Your task to perform on an android device: Open battery settings Image 0: 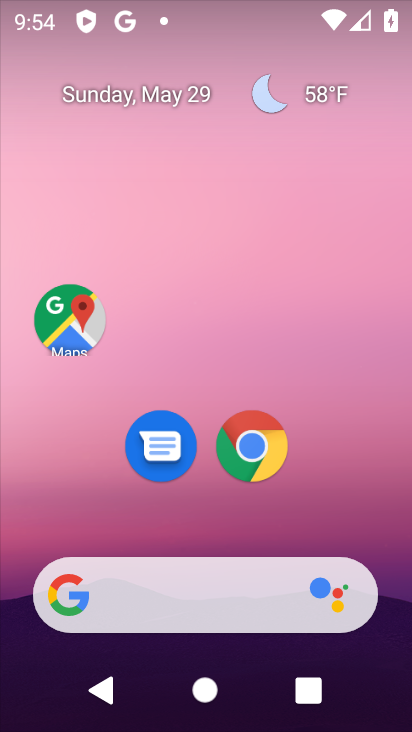
Step 0: drag from (337, 518) to (185, 25)
Your task to perform on an android device: Open battery settings Image 1: 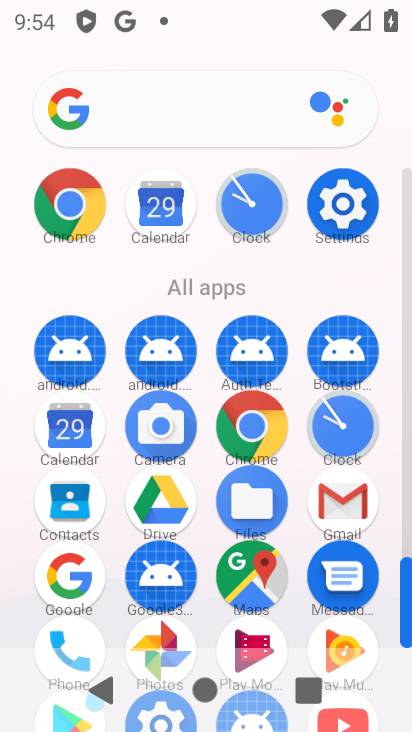
Step 1: drag from (4, 601) to (11, 207)
Your task to perform on an android device: Open battery settings Image 2: 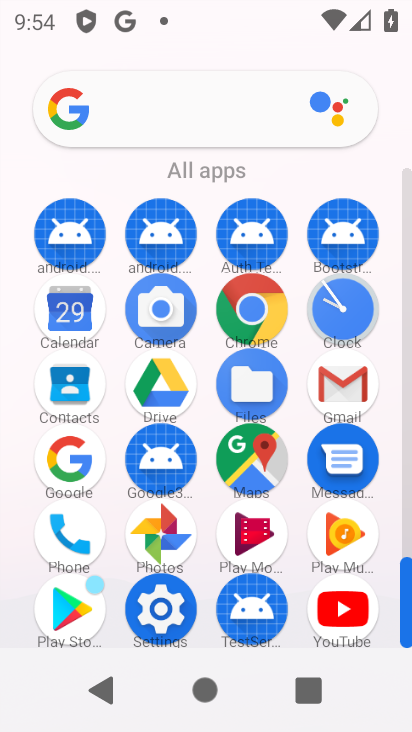
Step 2: click (160, 607)
Your task to perform on an android device: Open battery settings Image 3: 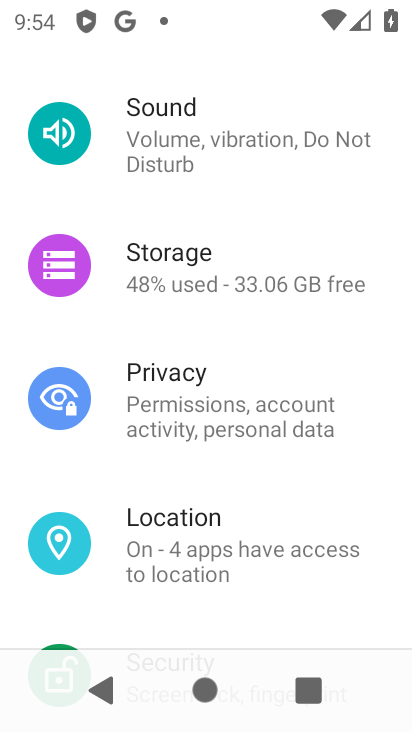
Step 3: drag from (272, 546) to (245, 158)
Your task to perform on an android device: Open battery settings Image 4: 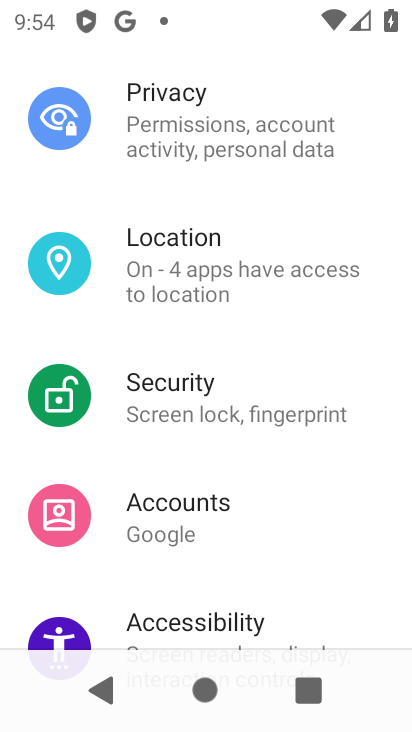
Step 4: drag from (255, 554) to (215, 135)
Your task to perform on an android device: Open battery settings Image 5: 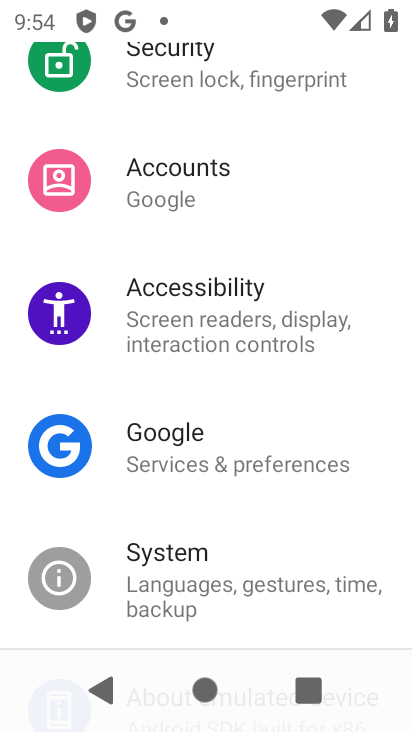
Step 5: drag from (222, 535) to (263, 140)
Your task to perform on an android device: Open battery settings Image 6: 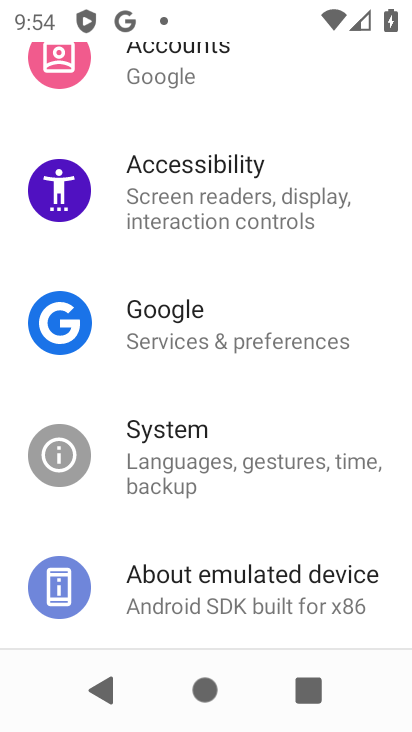
Step 6: drag from (236, 540) to (245, 157)
Your task to perform on an android device: Open battery settings Image 7: 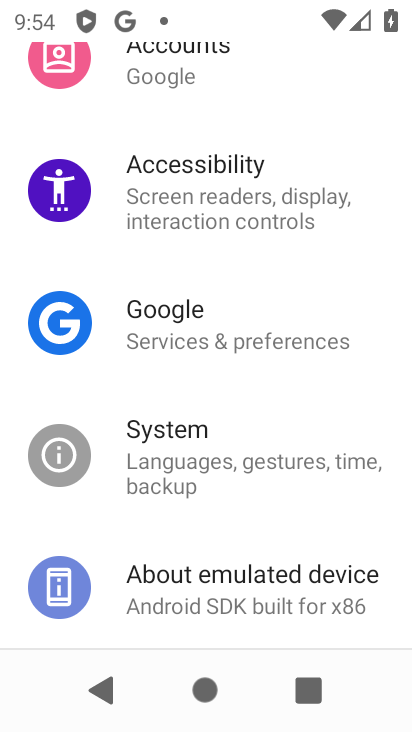
Step 7: drag from (257, 232) to (226, 520)
Your task to perform on an android device: Open battery settings Image 8: 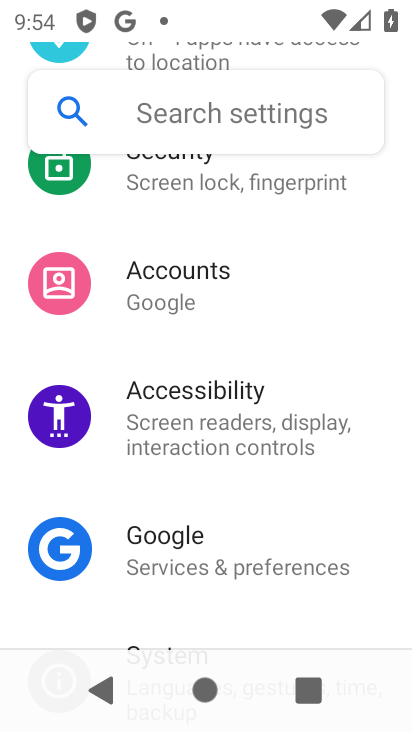
Step 8: drag from (255, 240) to (259, 574)
Your task to perform on an android device: Open battery settings Image 9: 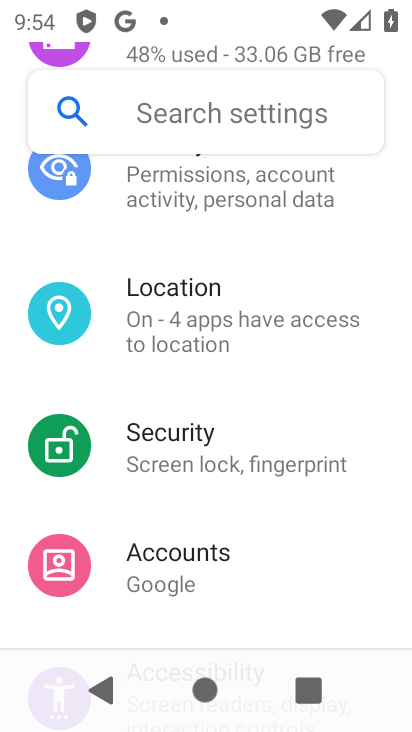
Step 9: drag from (253, 269) to (254, 595)
Your task to perform on an android device: Open battery settings Image 10: 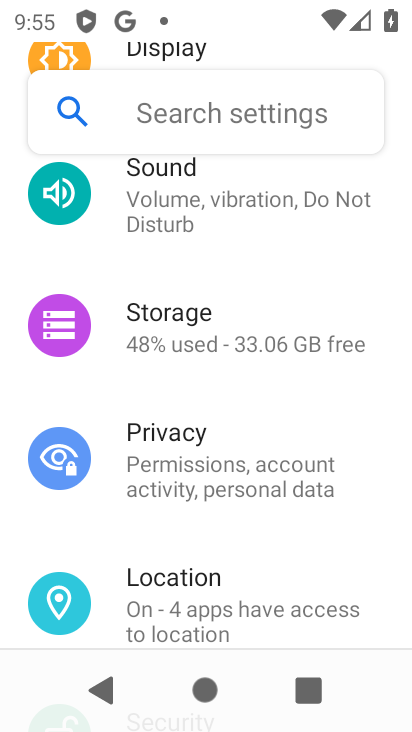
Step 10: drag from (263, 339) to (230, 581)
Your task to perform on an android device: Open battery settings Image 11: 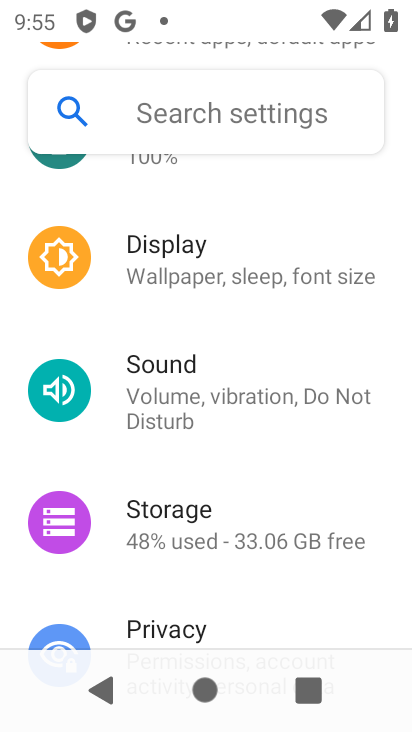
Step 11: drag from (254, 233) to (234, 566)
Your task to perform on an android device: Open battery settings Image 12: 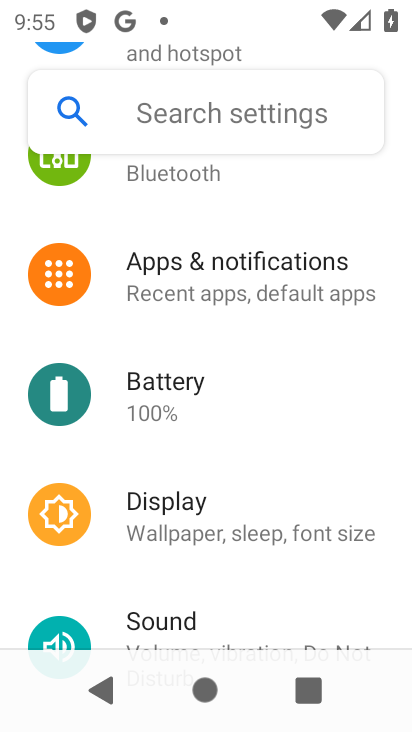
Step 12: click (186, 391)
Your task to perform on an android device: Open battery settings Image 13: 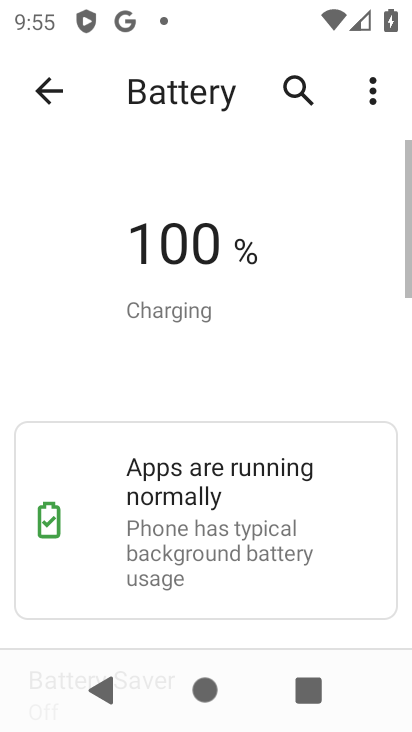
Step 13: task complete